Your task to perform on an android device: allow notifications from all sites in the chrome app Image 0: 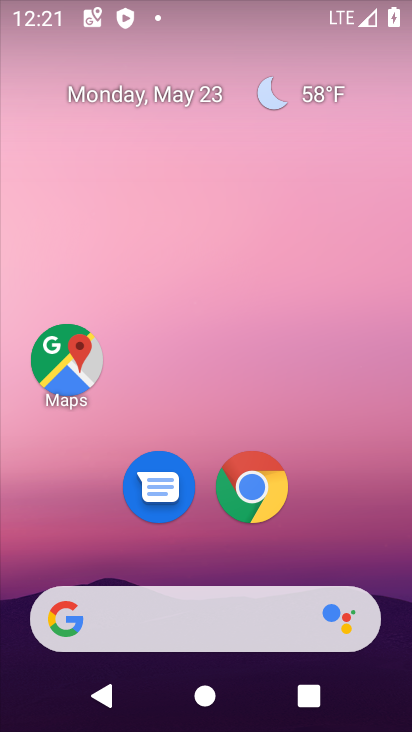
Step 0: click (250, 487)
Your task to perform on an android device: allow notifications from all sites in the chrome app Image 1: 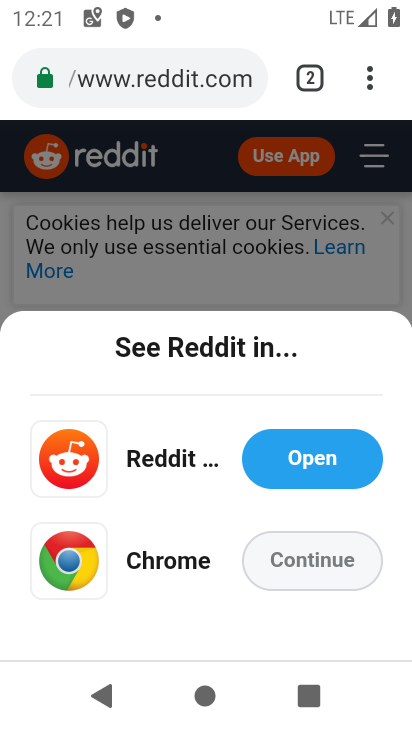
Step 1: click (370, 82)
Your task to perform on an android device: allow notifications from all sites in the chrome app Image 2: 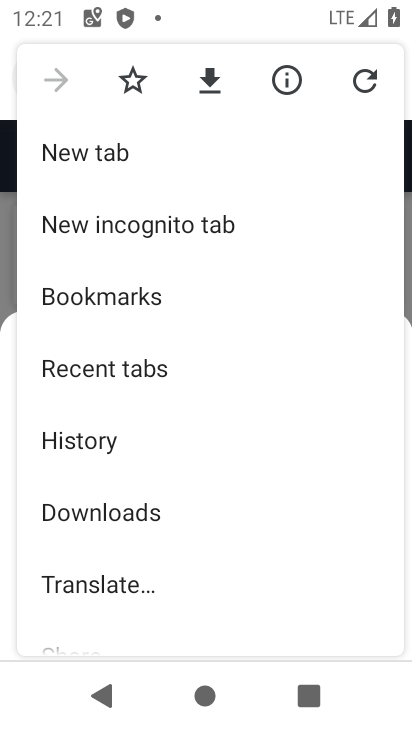
Step 2: drag from (246, 573) to (232, 199)
Your task to perform on an android device: allow notifications from all sites in the chrome app Image 3: 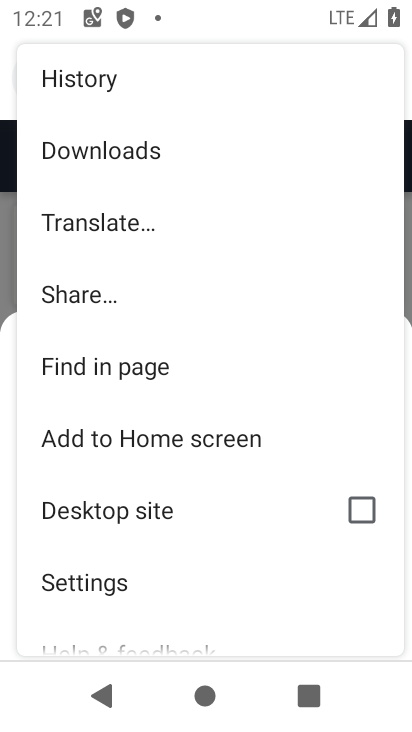
Step 3: click (75, 578)
Your task to perform on an android device: allow notifications from all sites in the chrome app Image 4: 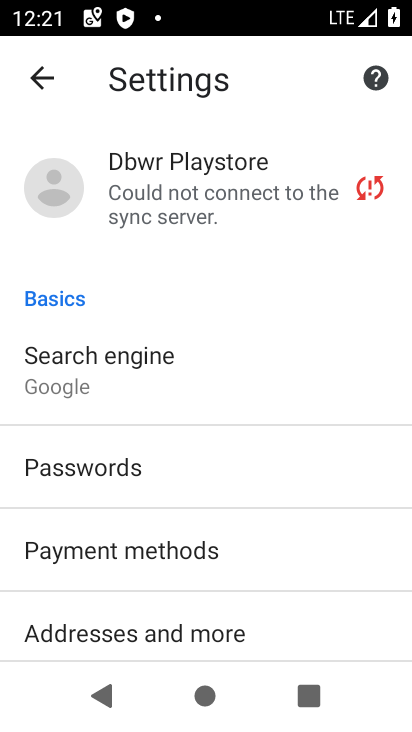
Step 4: drag from (313, 598) to (246, 185)
Your task to perform on an android device: allow notifications from all sites in the chrome app Image 5: 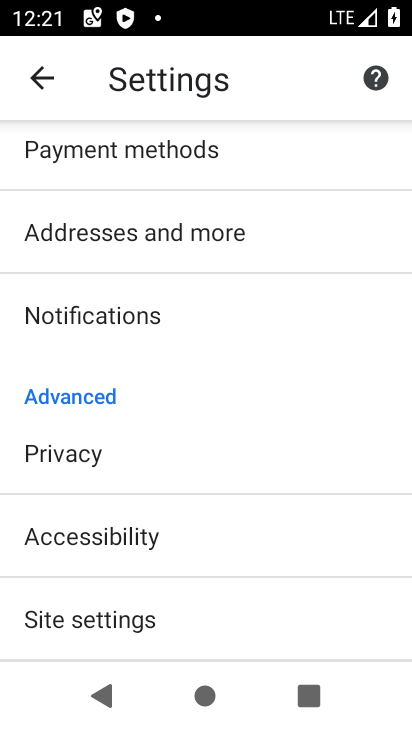
Step 5: click (84, 619)
Your task to perform on an android device: allow notifications from all sites in the chrome app Image 6: 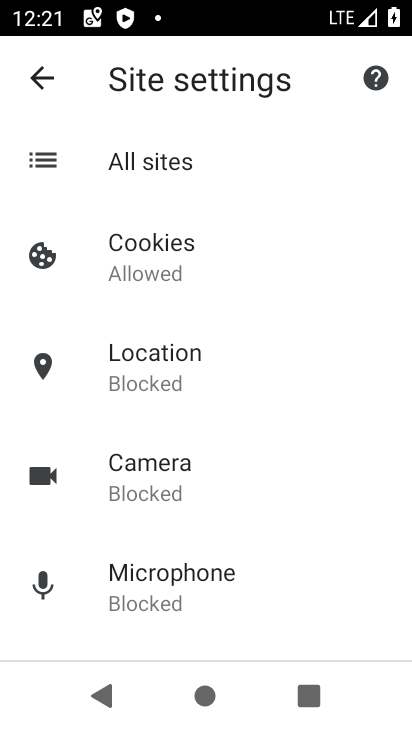
Step 6: drag from (233, 540) to (220, 215)
Your task to perform on an android device: allow notifications from all sites in the chrome app Image 7: 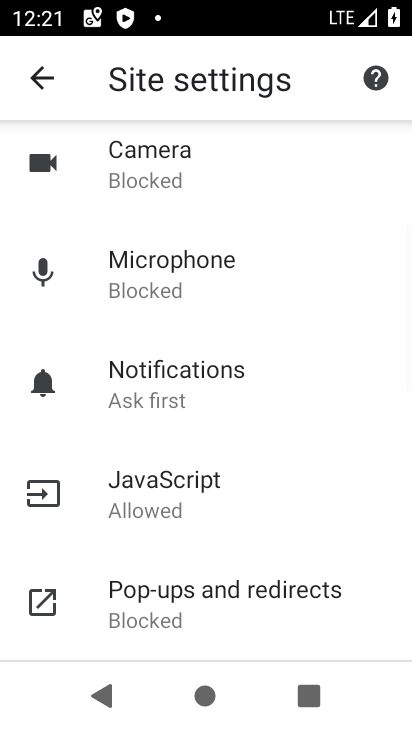
Step 7: click (138, 374)
Your task to perform on an android device: allow notifications from all sites in the chrome app Image 8: 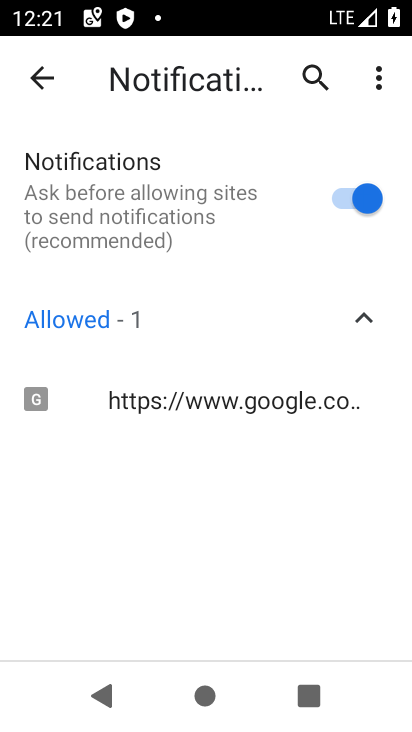
Step 8: task complete